Your task to perform on an android device: How big is a dinosaur? Image 0: 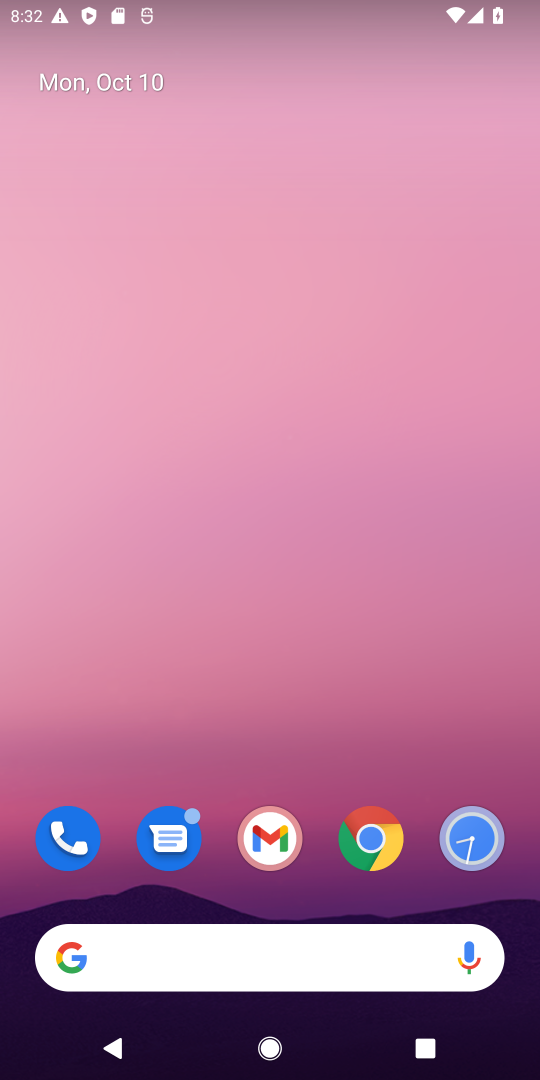
Step 0: drag from (292, 910) to (284, 114)
Your task to perform on an android device: How big is a dinosaur? Image 1: 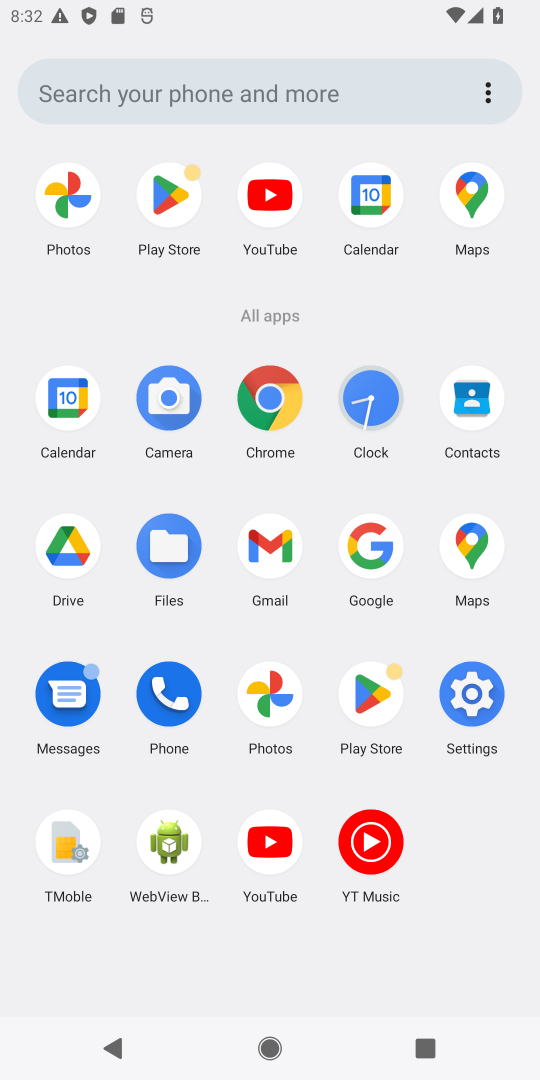
Step 1: click (256, 405)
Your task to perform on an android device: How big is a dinosaur? Image 2: 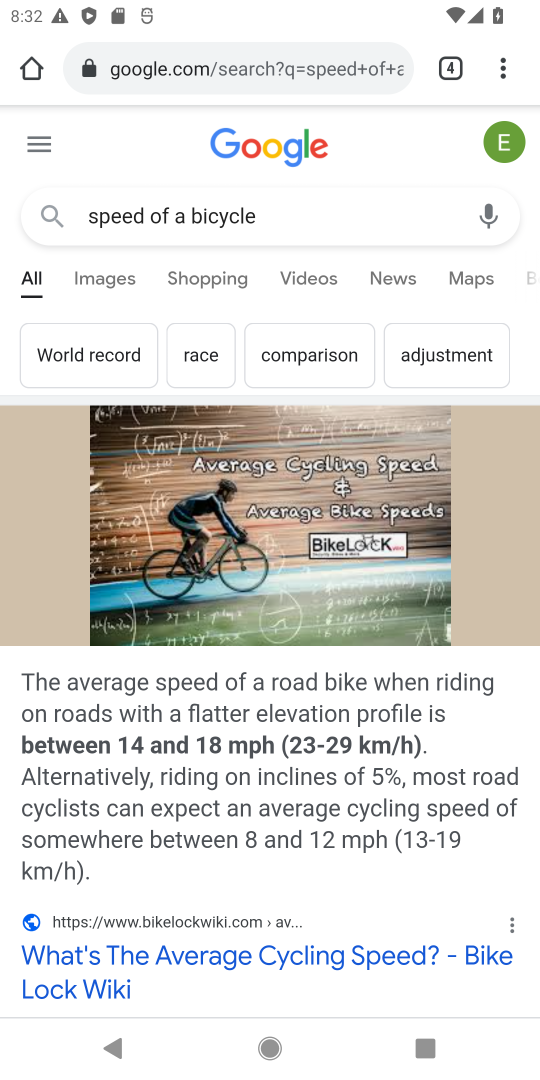
Step 2: click (350, 229)
Your task to perform on an android device: How big is a dinosaur? Image 3: 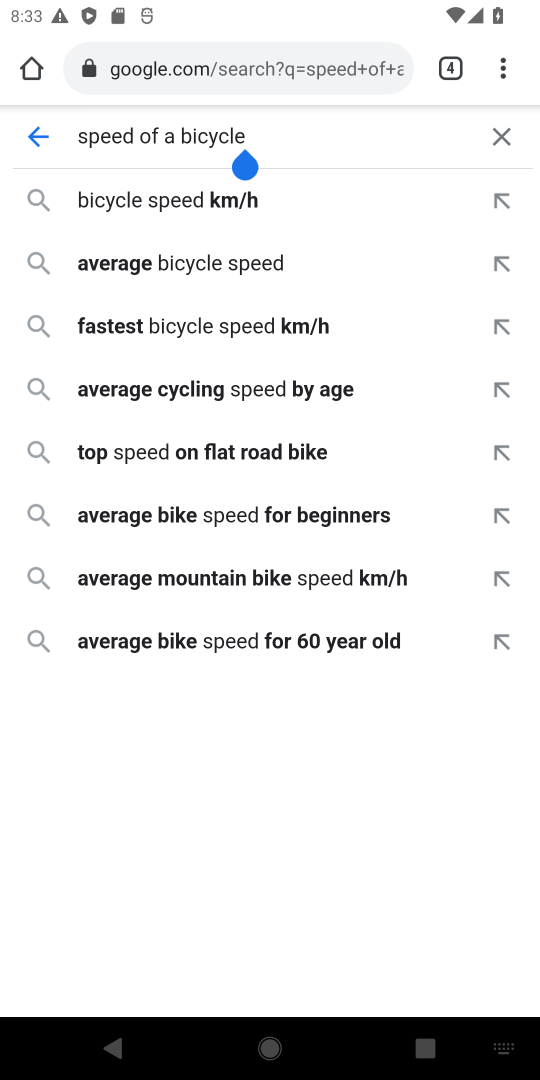
Step 3: click (507, 141)
Your task to perform on an android device: How big is a dinosaur? Image 4: 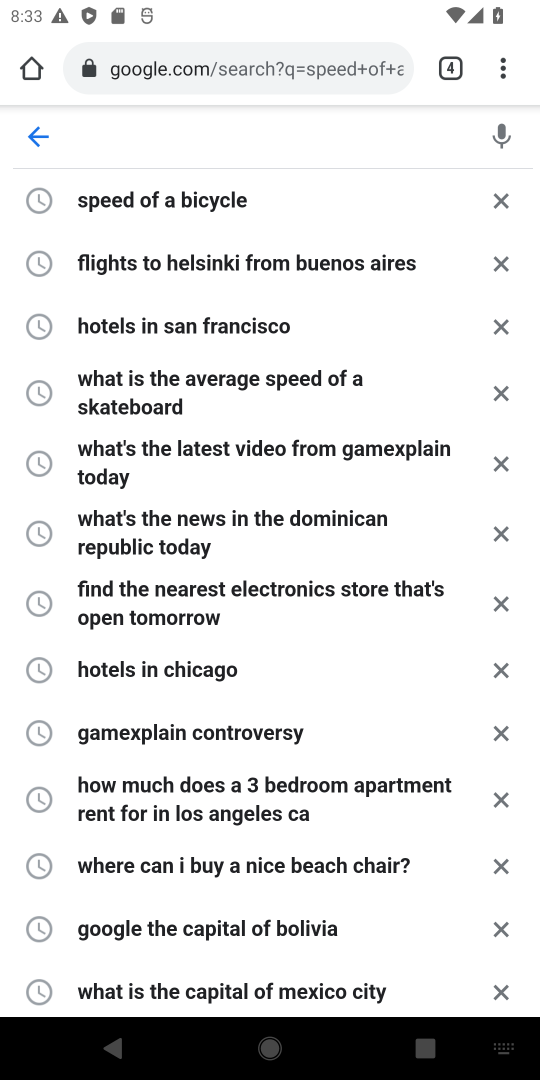
Step 4: type "How big is a dinosaur?"
Your task to perform on an android device: How big is a dinosaur? Image 5: 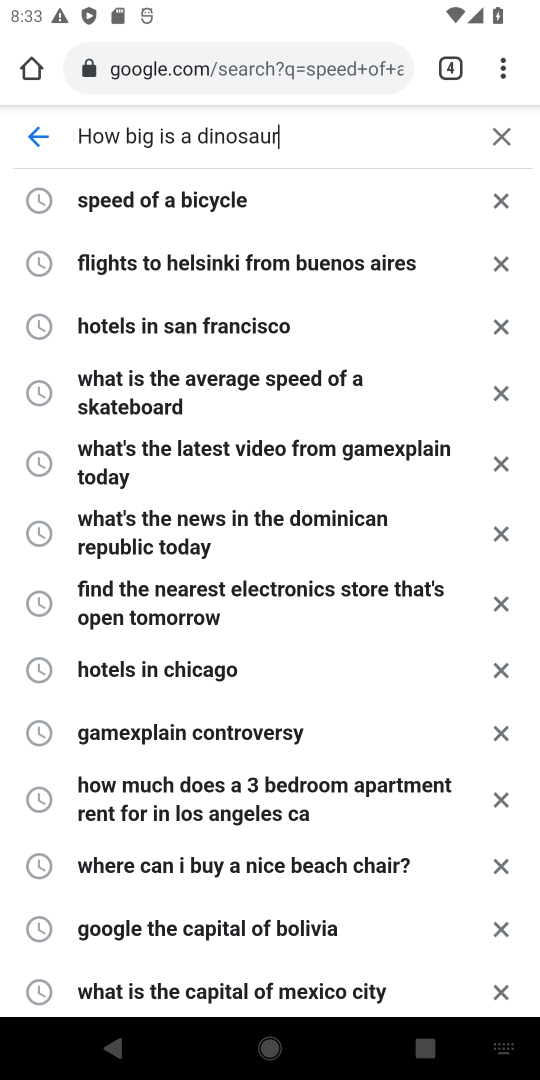
Step 5: type ""
Your task to perform on an android device: How big is a dinosaur? Image 6: 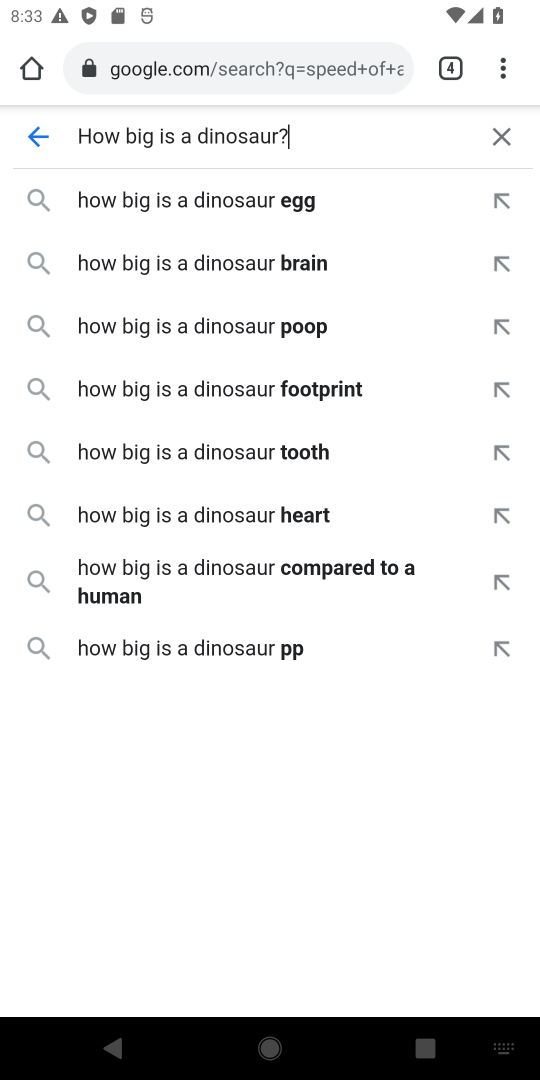
Step 6: type " "
Your task to perform on an android device: How big is a dinosaur? Image 7: 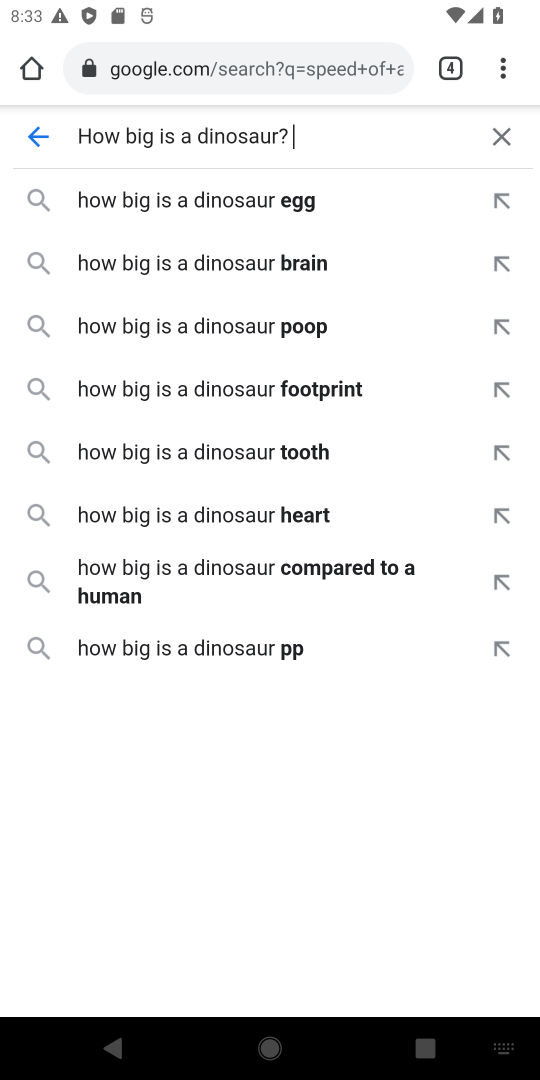
Step 7: type ""
Your task to perform on an android device: How big is a dinosaur? Image 8: 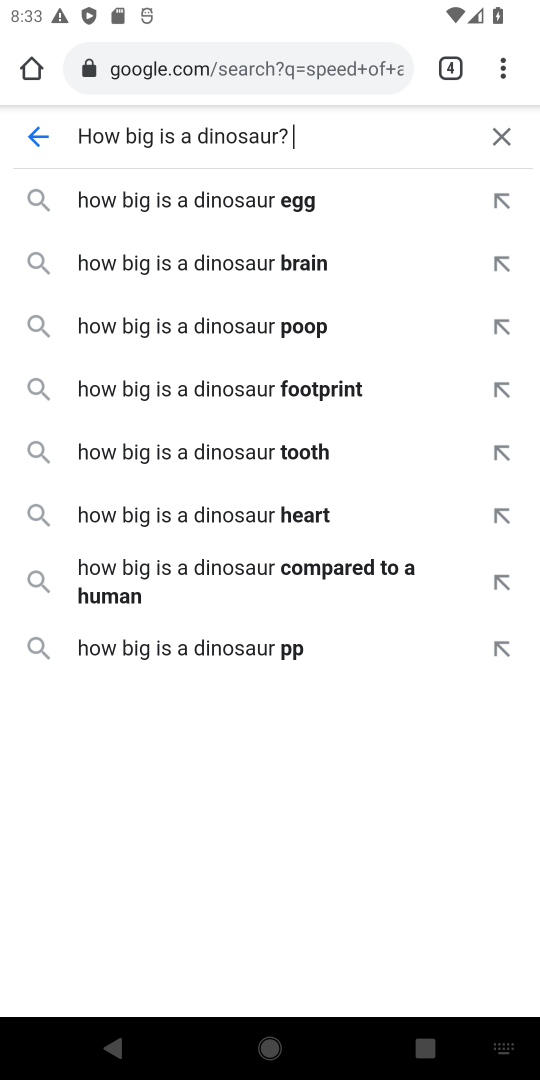
Step 8: type " "
Your task to perform on an android device: How big is a dinosaur? Image 9: 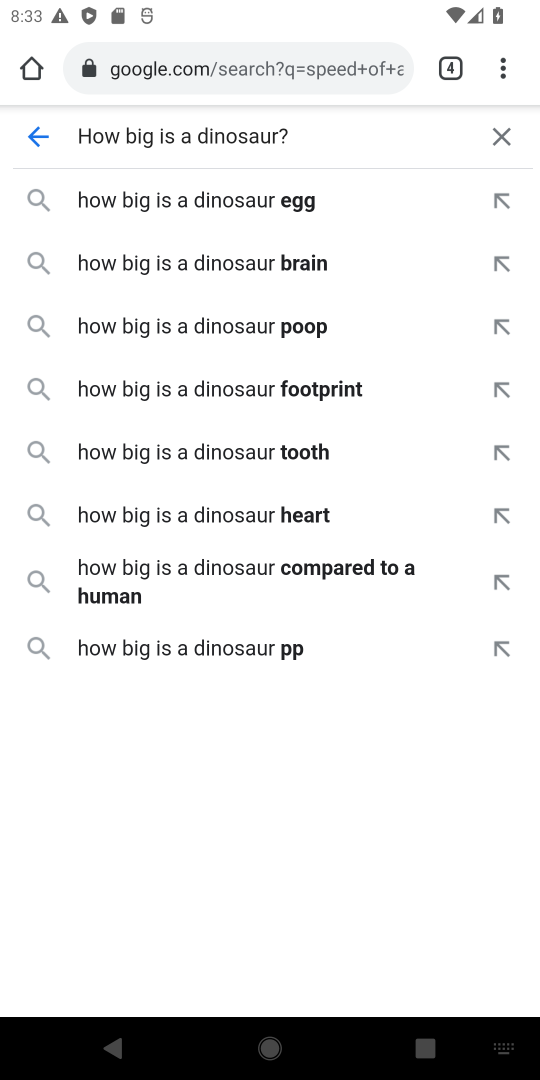
Step 9: type ""
Your task to perform on an android device: How big is a dinosaur? Image 10: 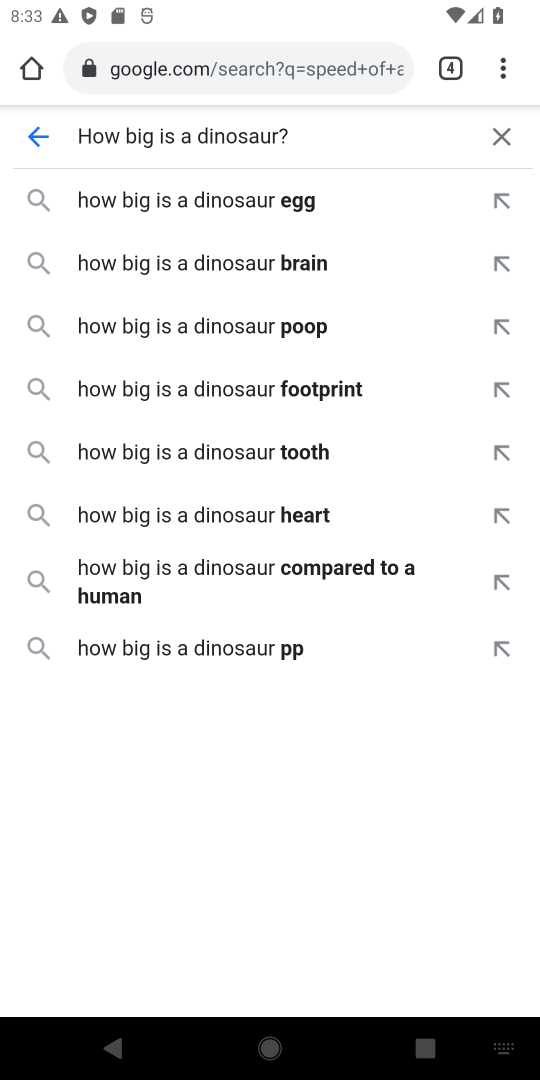
Step 10: click (259, 142)
Your task to perform on an android device: How big is a dinosaur? Image 11: 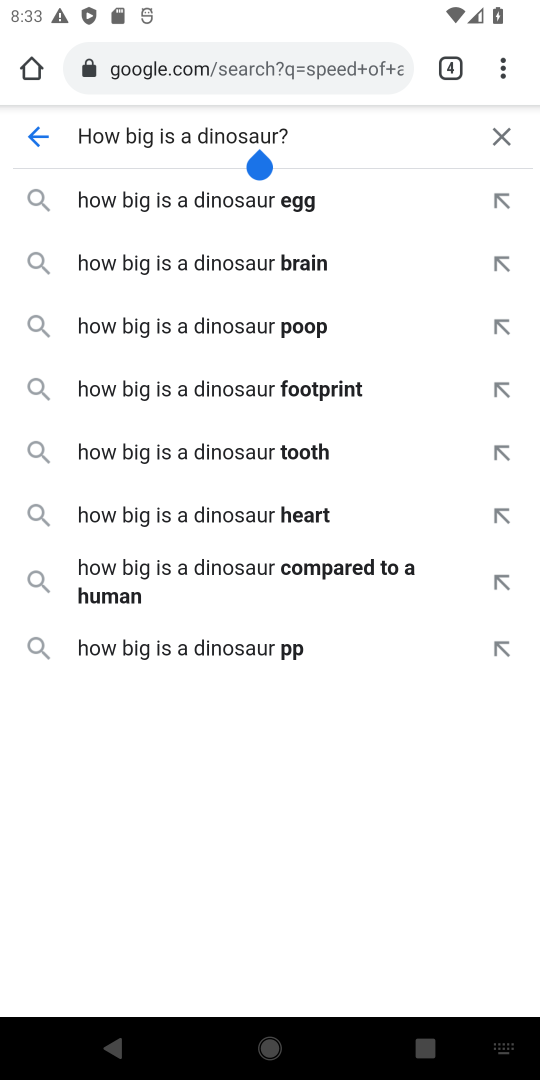
Step 11: click (255, 136)
Your task to perform on an android device: How big is a dinosaur? Image 12: 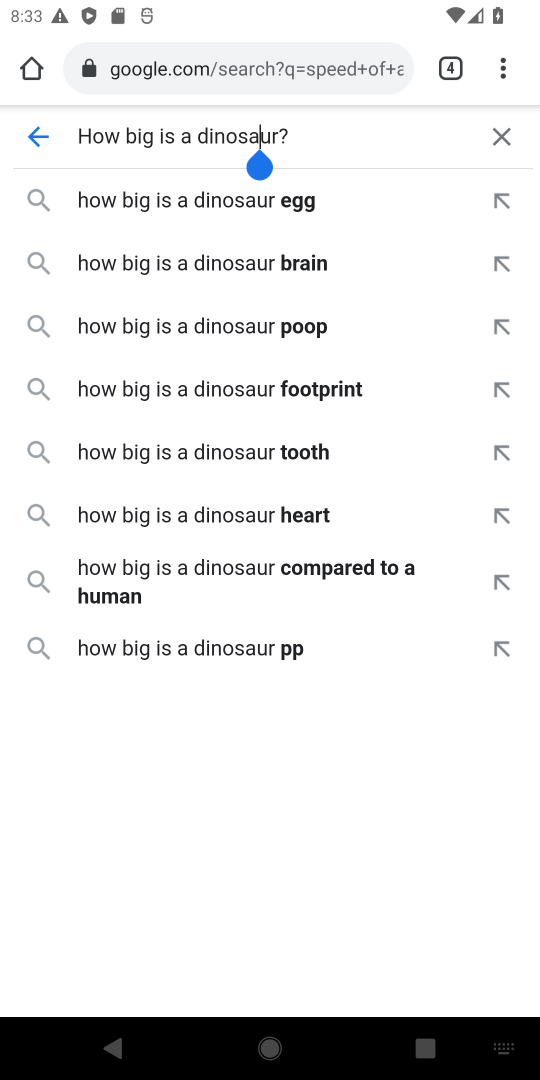
Step 12: click (250, 659)
Your task to perform on an android device: How big is a dinosaur? Image 13: 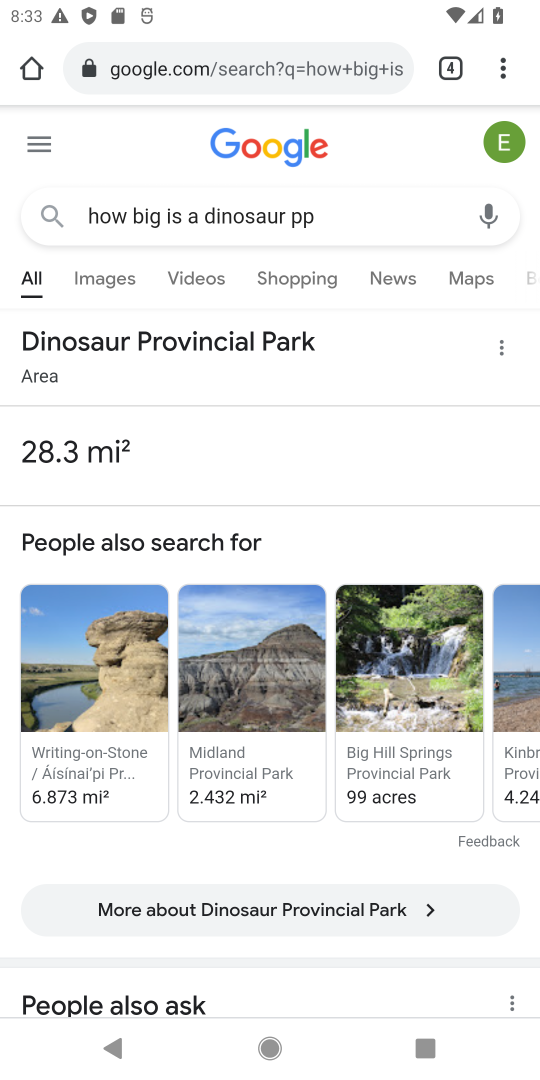
Step 13: task complete